Your task to perform on an android device: check out phone information Image 0: 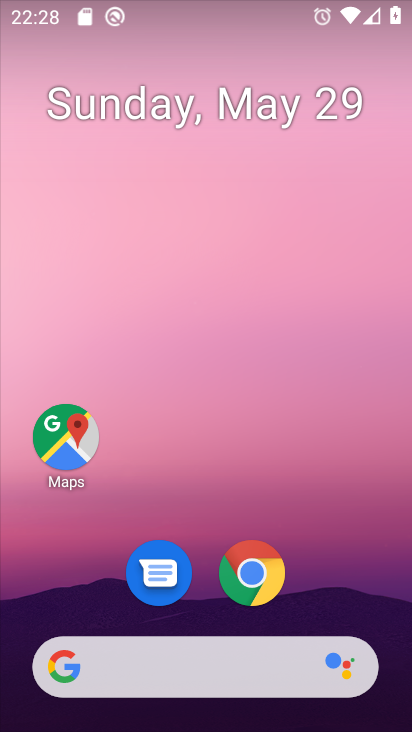
Step 0: drag from (212, 467) to (233, 0)
Your task to perform on an android device: check out phone information Image 1: 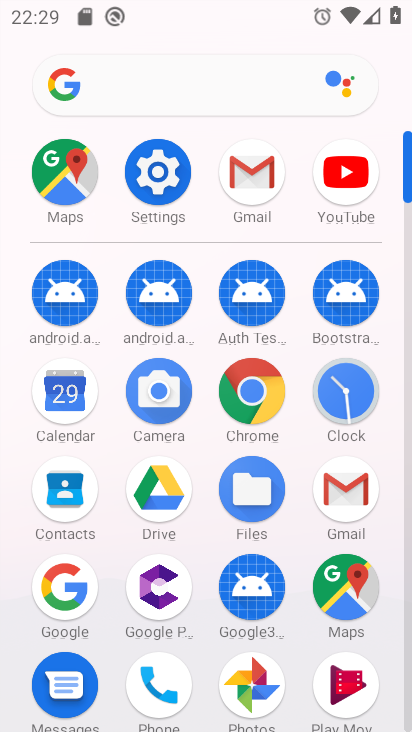
Step 1: click (167, 673)
Your task to perform on an android device: check out phone information Image 2: 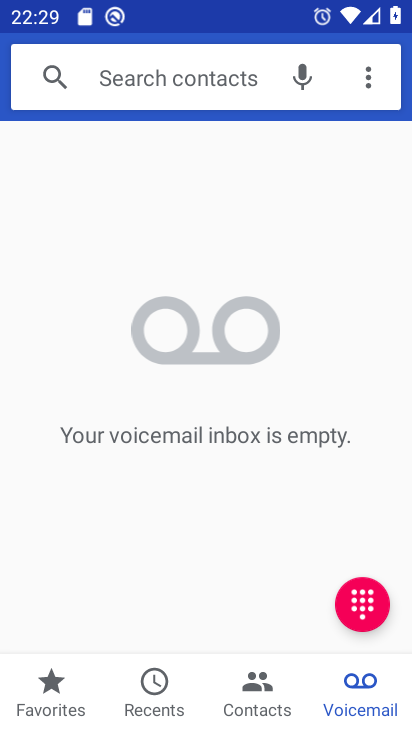
Step 2: click (365, 80)
Your task to perform on an android device: check out phone information Image 3: 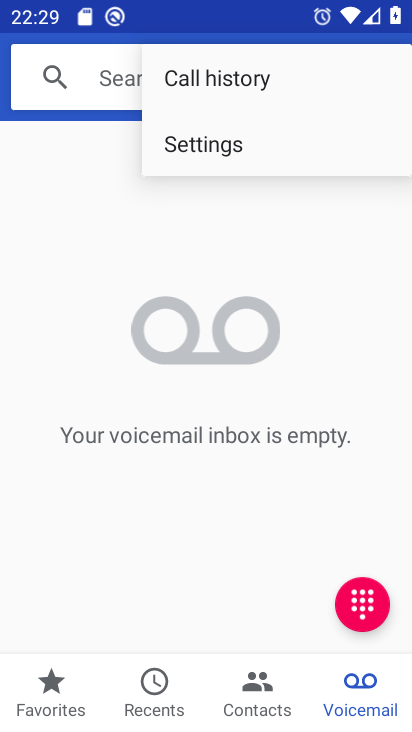
Step 3: click (293, 150)
Your task to perform on an android device: check out phone information Image 4: 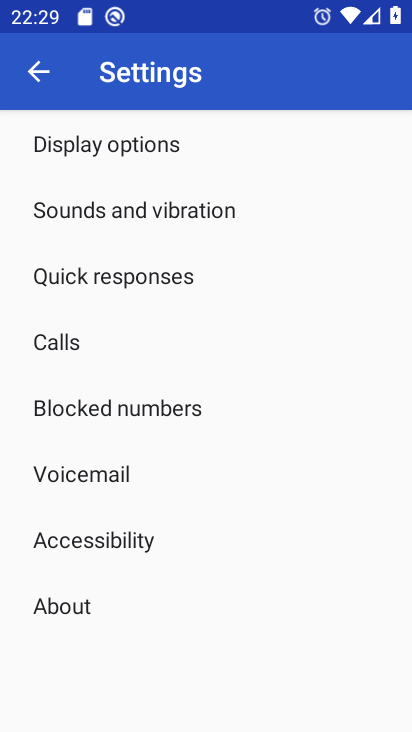
Step 4: click (174, 628)
Your task to perform on an android device: check out phone information Image 5: 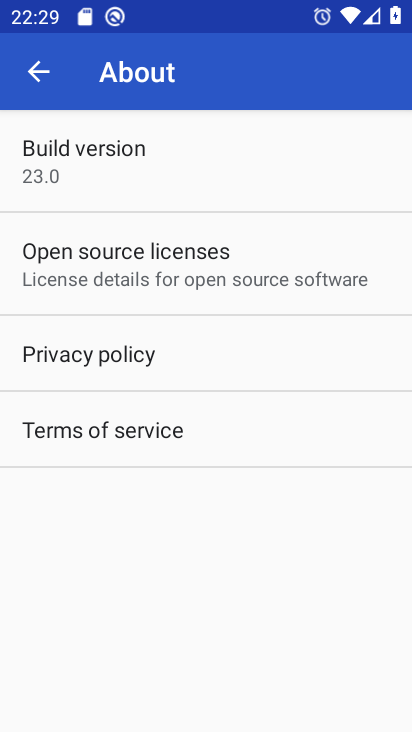
Step 5: task complete